Your task to perform on an android device: Go to internet settings Image 0: 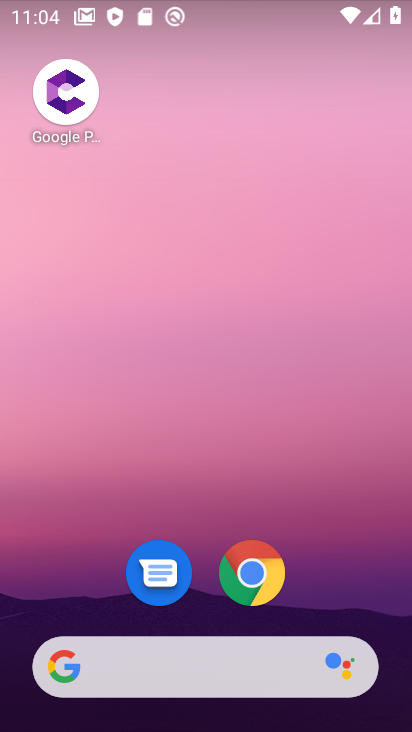
Step 0: drag from (329, 573) to (336, 8)
Your task to perform on an android device: Go to internet settings Image 1: 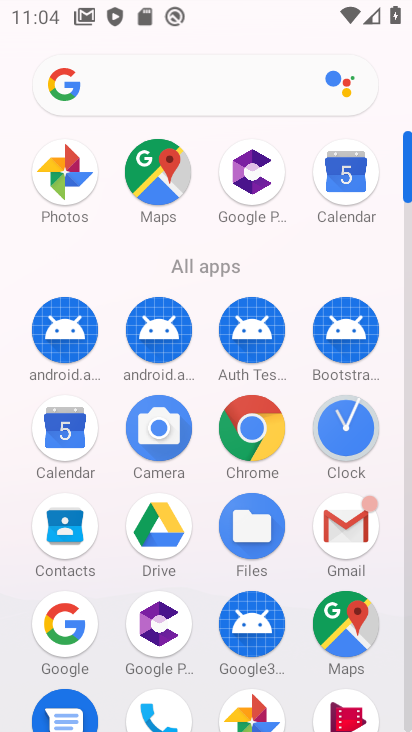
Step 1: drag from (190, 461) to (214, 271)
Your task to perform on an android device: Go to internet settings Image 2: 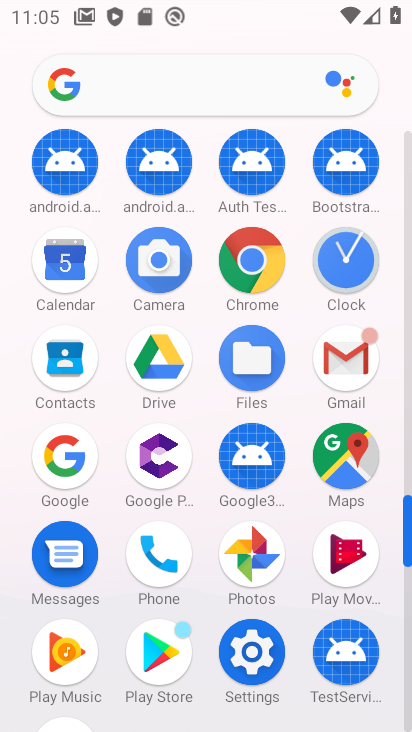
Step 2: click (250, 651)
Your task to perform on an android device: Go to internet settings Image 3: 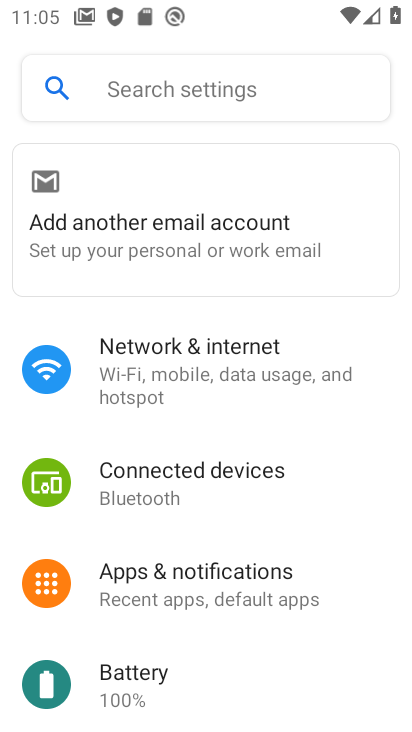
Step 3: click (205, 346)
Your task to perform on an android device: Go to internet settings Image 4: 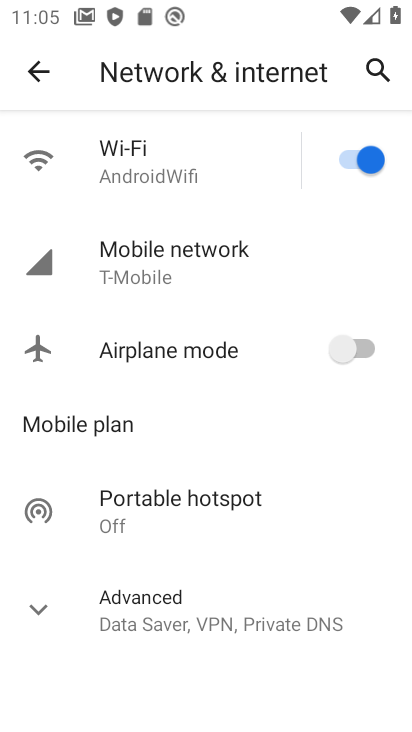
Step 4: click (123, 150)
Your task to perform on an android device: Go to internet settings Image 5: 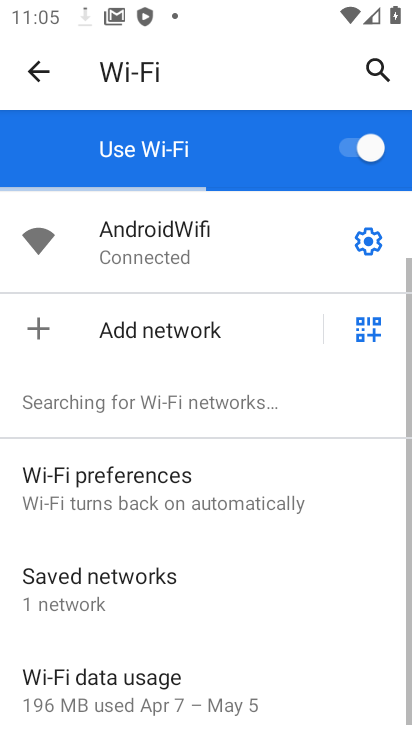
Step 5: click (373, 235)
Your task to perform on an android device: Go to internet settings Image 6: 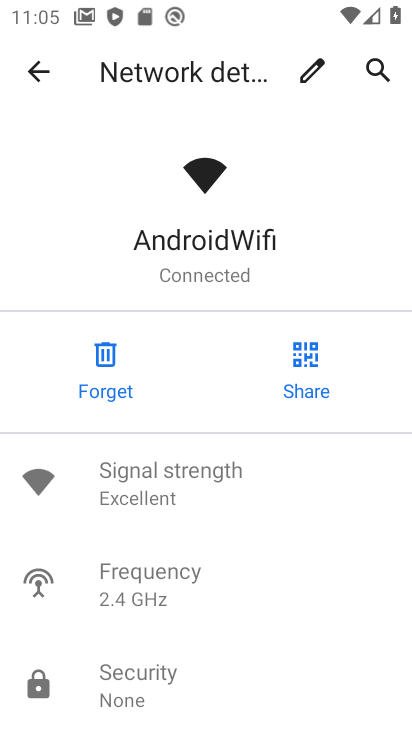
Step 6: task complete